Your task to perform on an android device: Go to display settings Image 0: 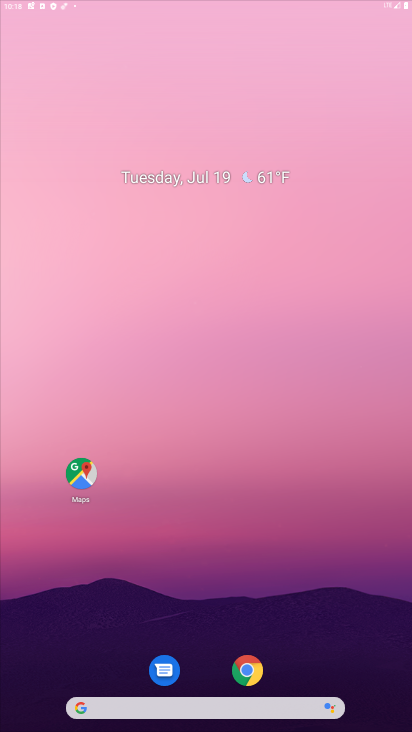
Step 0: click (321, 410)
Your task to perform on an android device: Go to display settings Image 1: 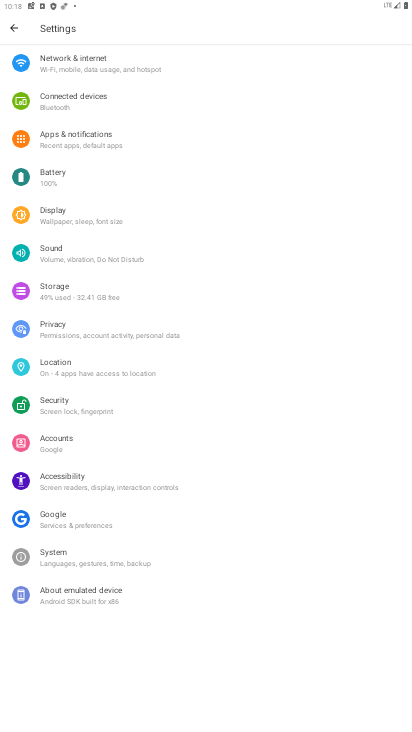
Step 1: click (82, 220)
Your task to perform on an android device: Go to display settings Image 2: 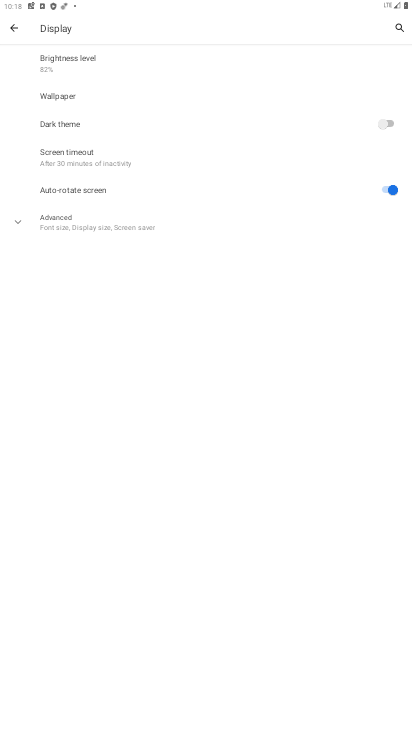
Step 2: task complete